Your task to perform on an android device: Go to privacy settings Image 0: 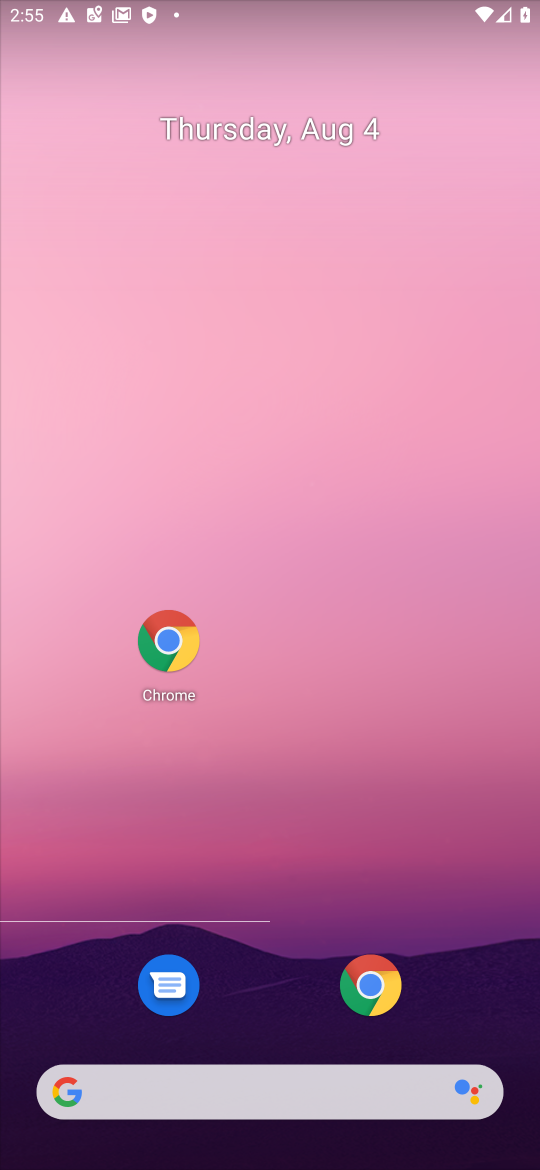
Step 0: drag from (329, 573) to (324, 106)
Your task to perform on an android device: Go to privacy settings Image 1: 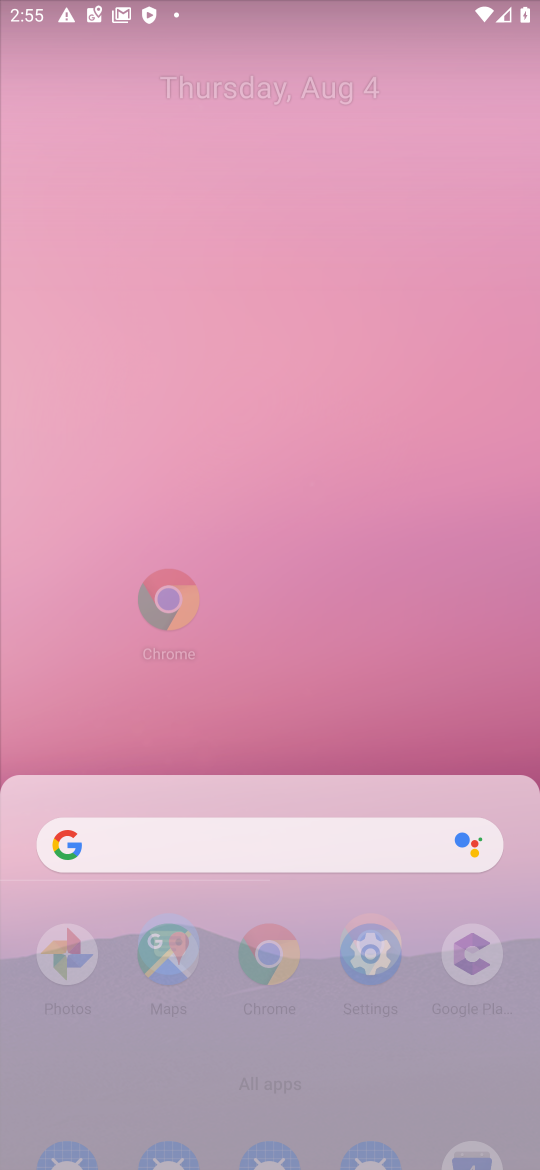
Step 1: drag from (349, 946) to (378, 99)
Your task to perform on an android device: Go to privacy settings Image 2: 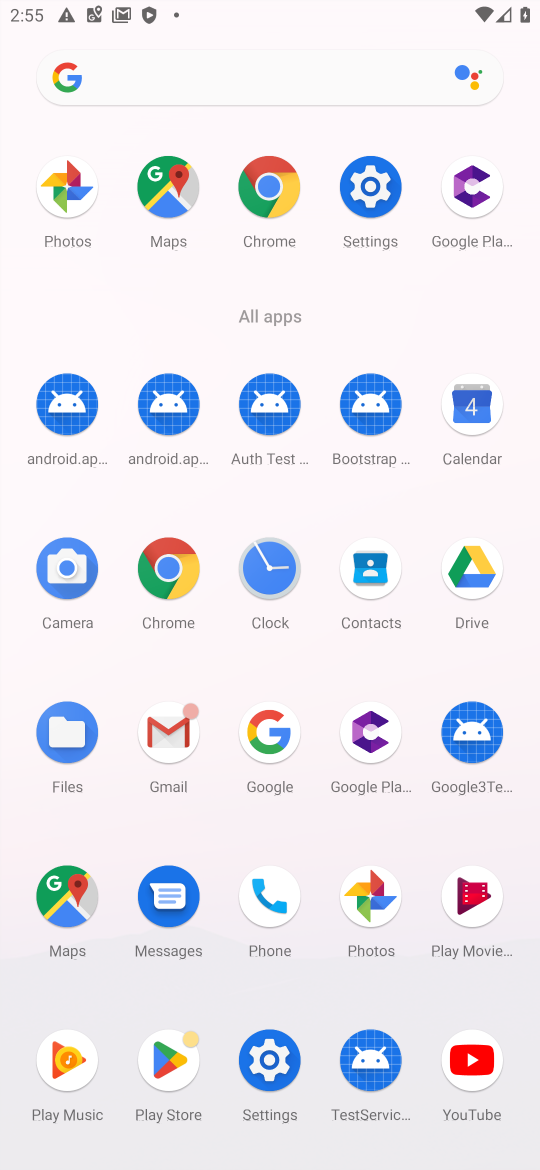
Step 2: click (361, 187)
Your task to perform on an android device: Go to privacy settings Image 3: 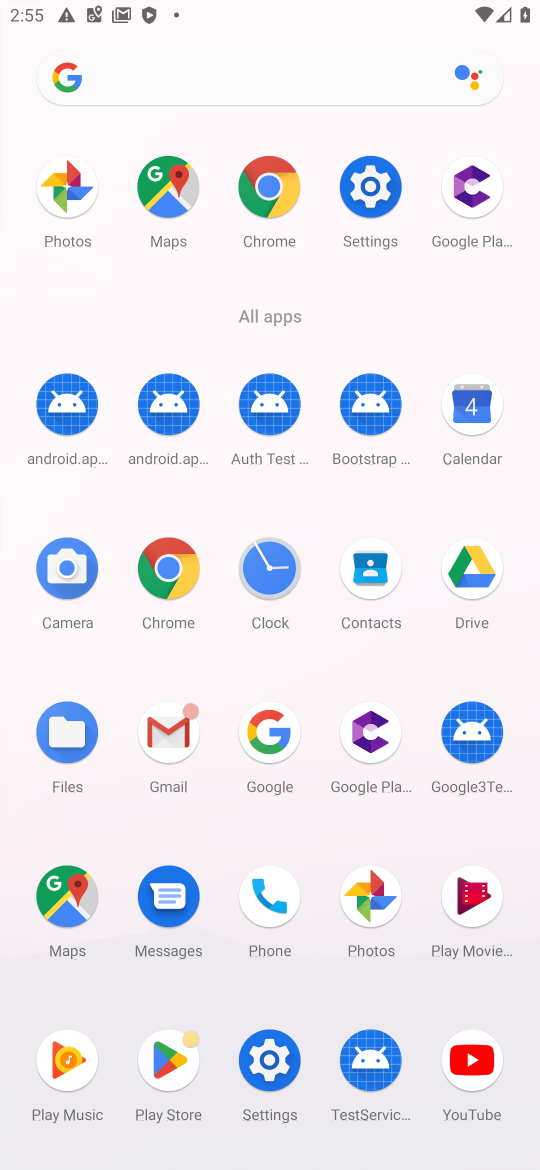
Step 3: click (361, 188)
Your task to perform on an android device: Go to privacy settings Image 4: 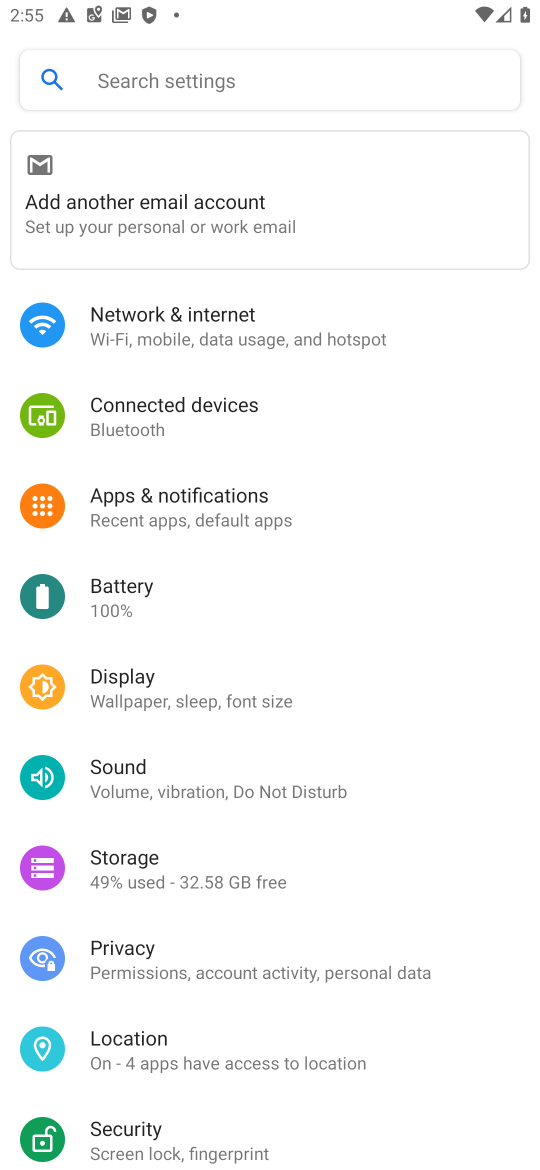
Step 4: click (122, 954)
Your task to perform on an android device: Go to privacy settings Image 5: 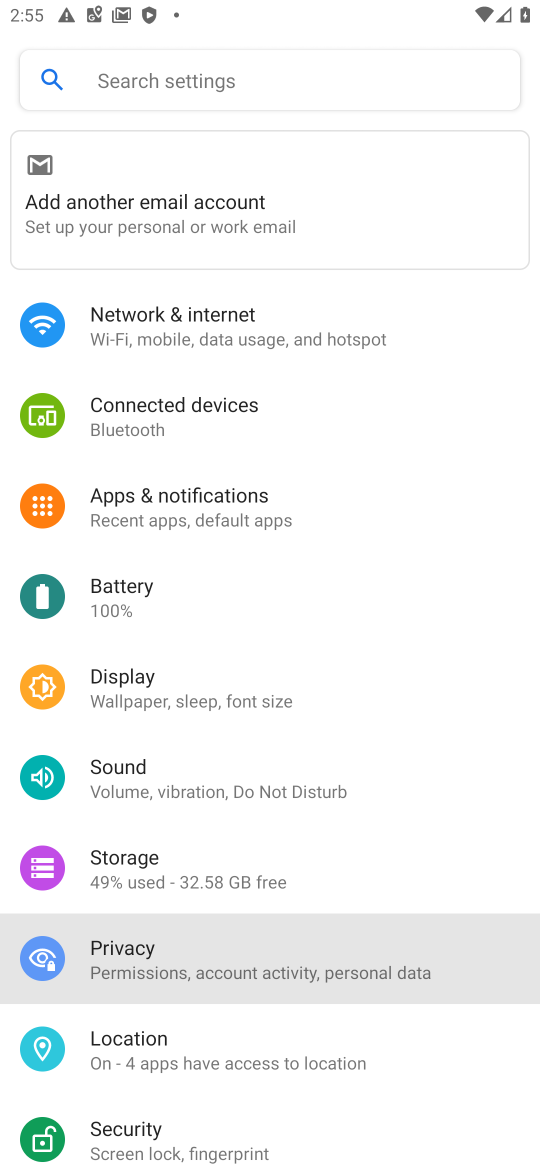
Step 5: task complete